Your task to perform on an android device: Show me recent news Image 0: 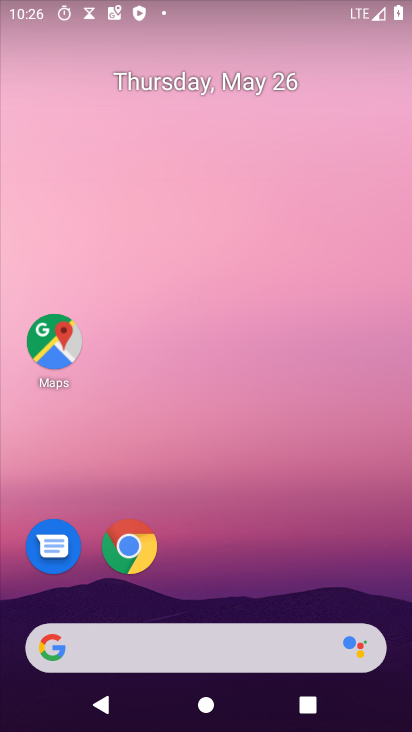
Step 0: drag from (333, 562) to (324, 81)
Your task to perform on an android device: Show me recent news Image 1: 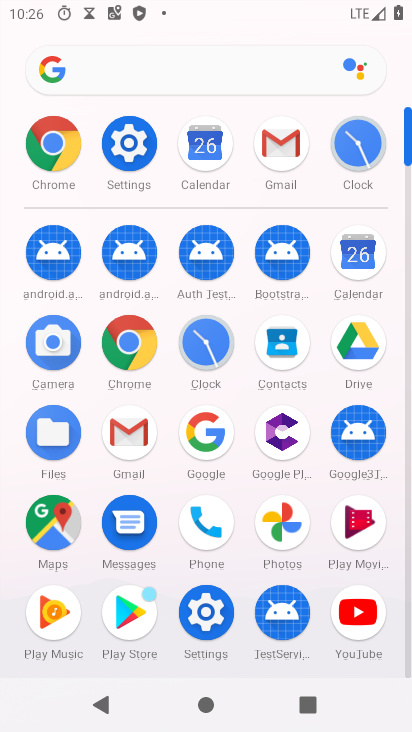
Step 1: click (123, 337)
Your task to perform on an android device: Show me recent news Image 2: 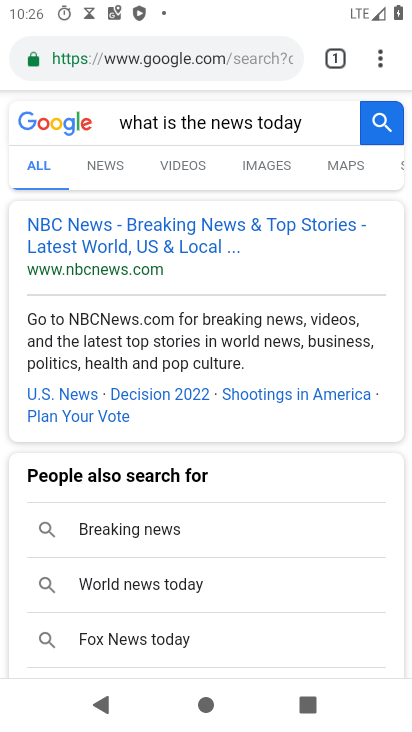
Step 2: click (183, 61)
Your task to perform on an android device: Show me recent news Image 3: 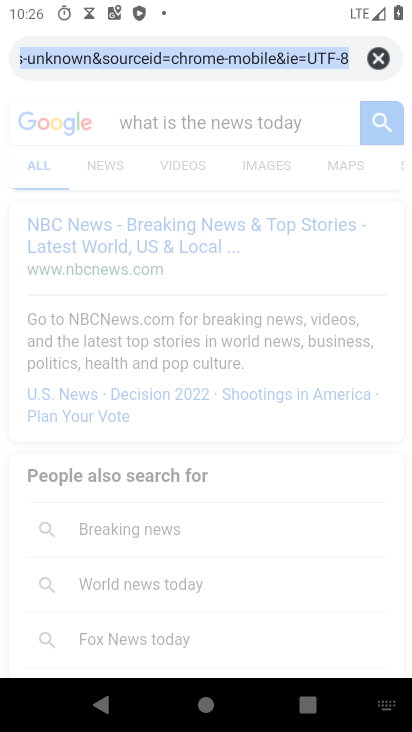
Step 3: click (388, 70)
Your task to perform on an android device: Show me recent news Image 4: 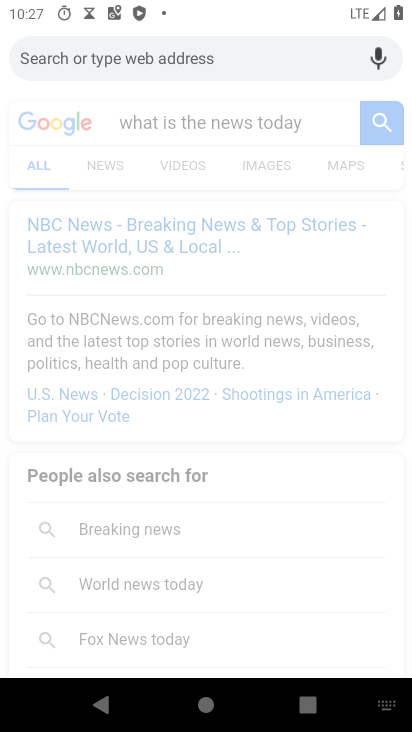
Step 4: type "recent news "
Your task to perform on an android device: Show me recent news Image 5: 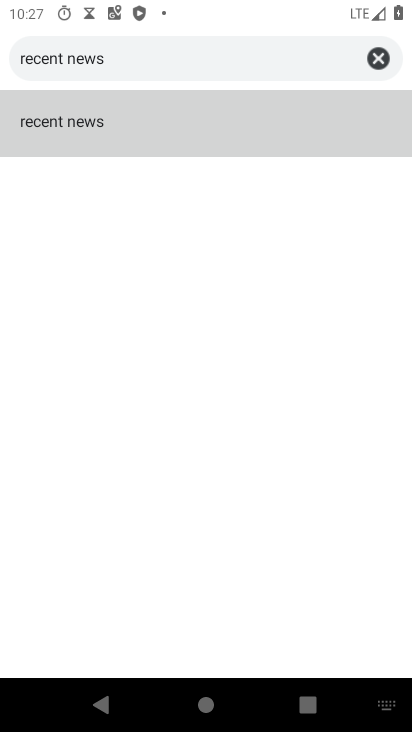
Step 5: click (140, 99)
Your task to perform on an android device: Show me recent news Image 6: 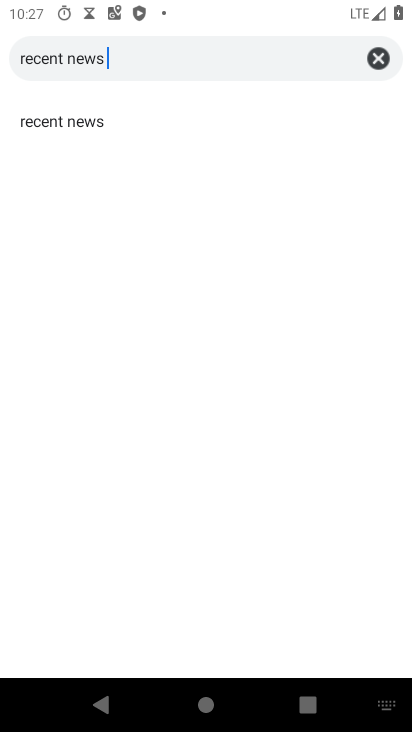
Step 6: click (128, 118)
Your task to perform on an android device: Show me recent news Image 7: 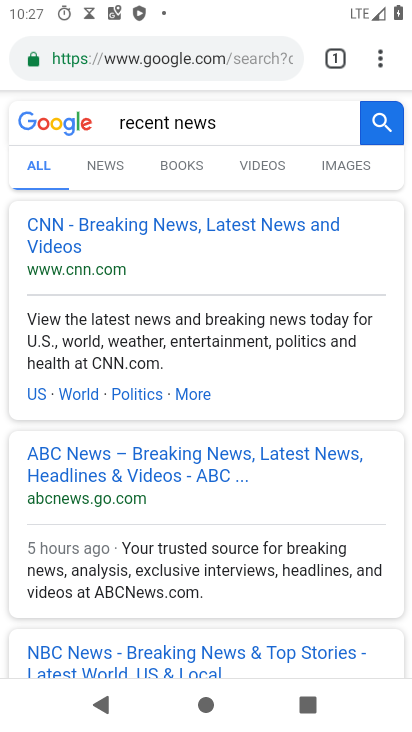
Step 7: task complete